Your task to perform on an android device: Open Google Image 0: 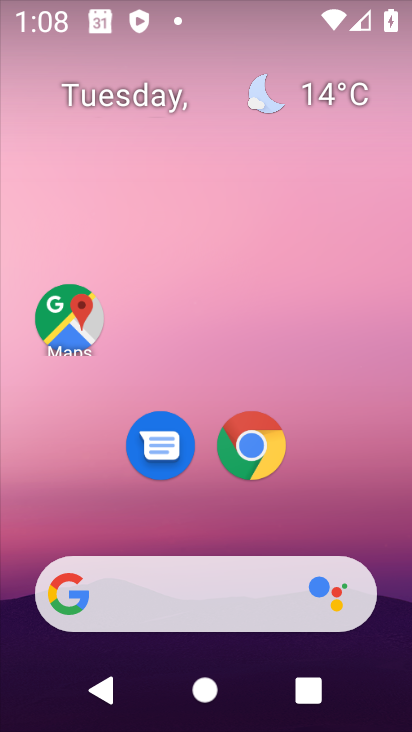
Step 0: drag from (329, 512) to (359, 143)
Your task to perform on an android device: Open Google Image 1: 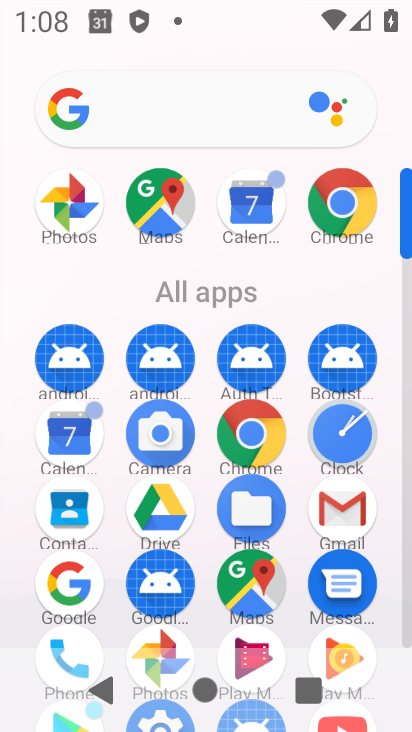
Step 1: drag from (297, 474) to (297, 215)
Your task to perform on an android device: Open Google Image 2: 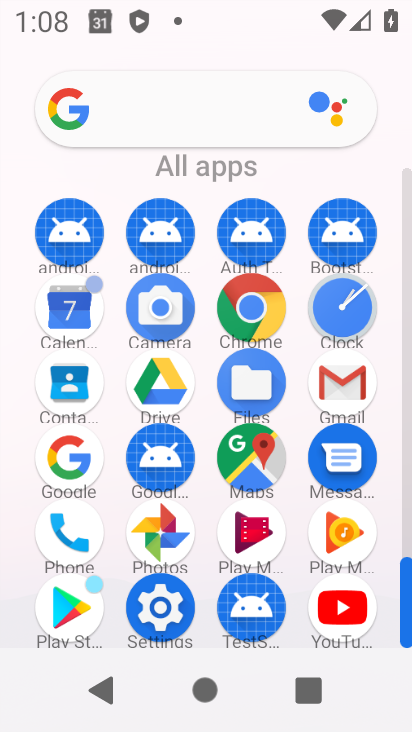
Step 2: click (69, 460)
Your task to perform on an android device: Open Google Image 3: 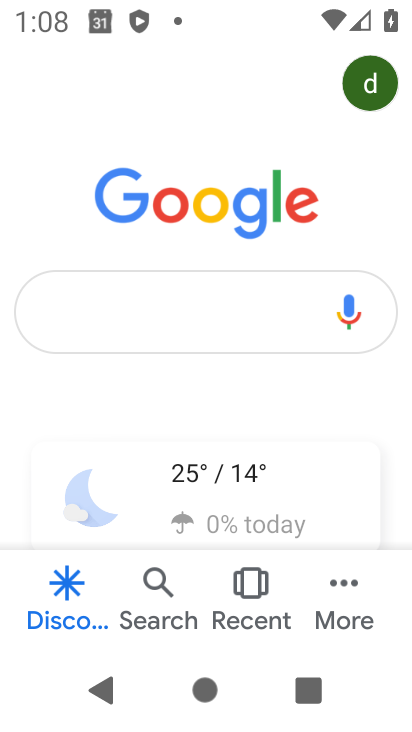
Step 3: task complete